Your task to perform on an android device: Open the calendar and show me this week's events Image 0: 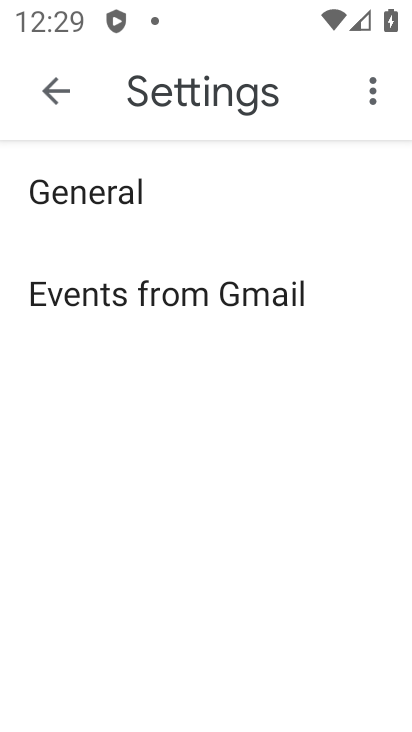
Step 0: press home button
Your task to perform on an android device: Open the calendar and show me this week's events Image 1: 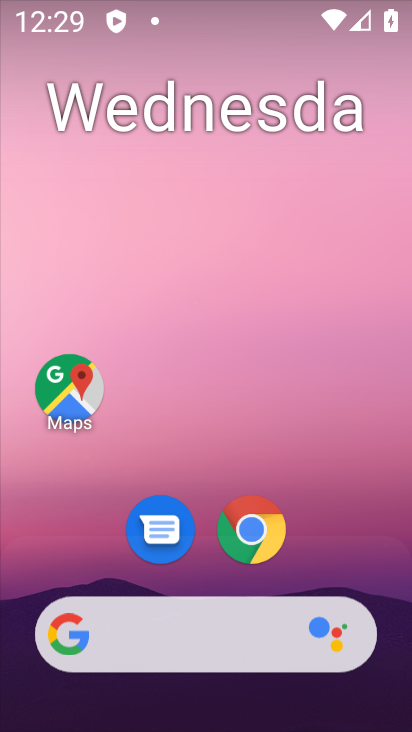
Step 1: drag from (212, 713) to (205, 142)
Your task to perform on an android device: Open the calendar and show me this week's events Image 2: 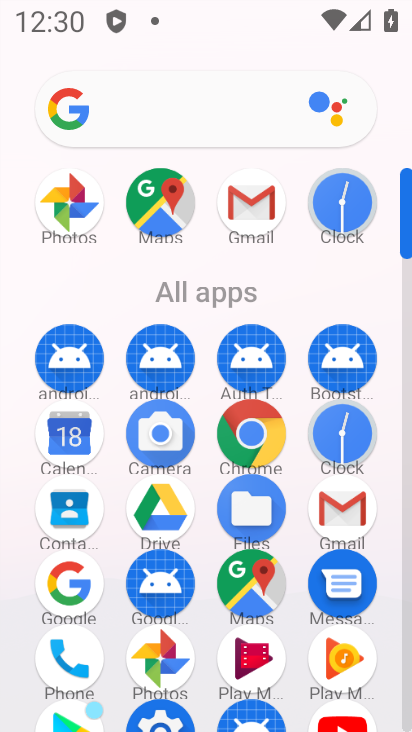
Step 2: click (68, 438)
Your task to perform on an android device: Open the calendar and show me this week's events Image 3: 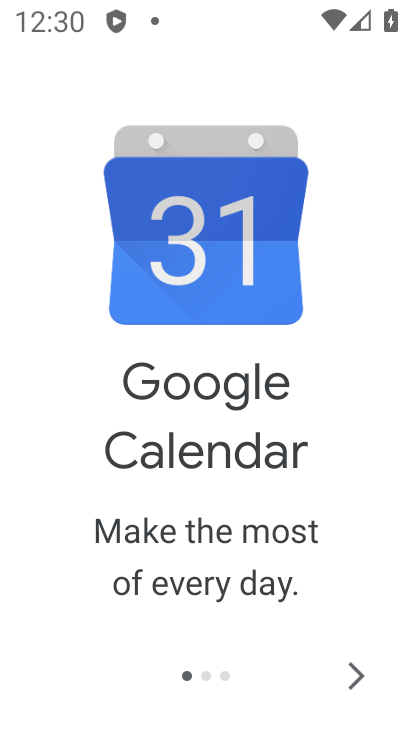
Step 3: click (354, 667)
Your task to perform on an android device: Open the calendar and show me this week's events Image 4: 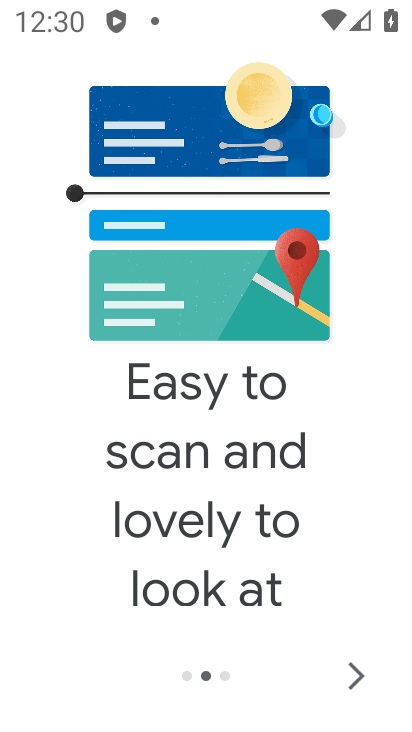
Step 4: click (352, 674)
Your task to perform on an android device: Open the calendar and show me this week's events Image 5: 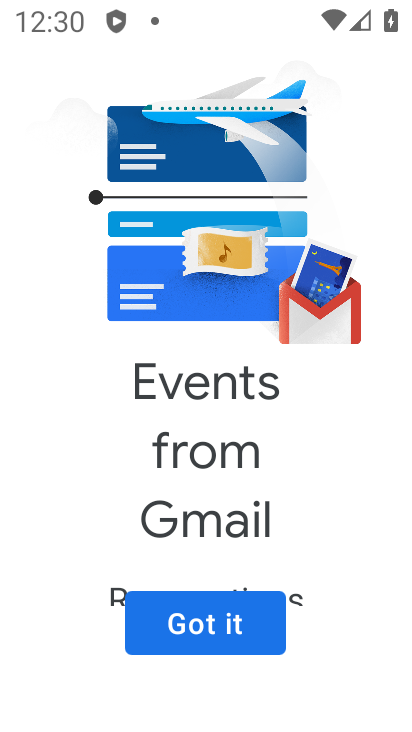
Step 5: click (190, 609)
Your task to perform on an android device: Open the calendar and show me this week's events Image 6: 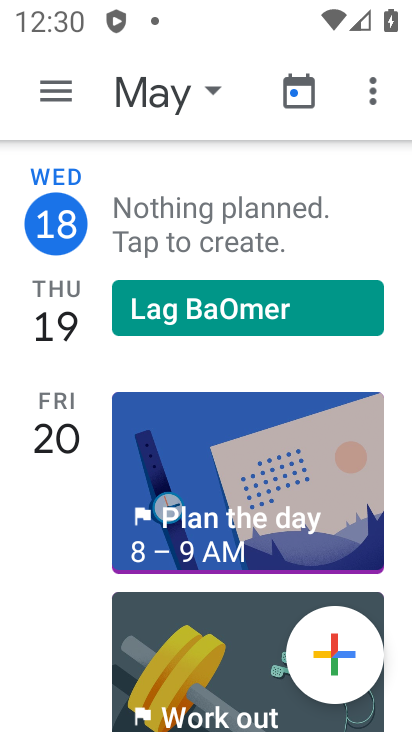
Step 6: click (147, 79)
Your task to perform on an android device: Open the calendar and show me this week's events Image 7: 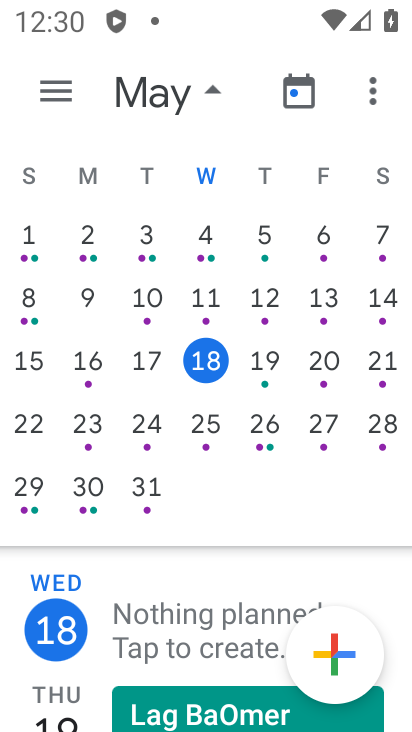
Step 7: click (44, 84)
Your task to perform on an android device: Open the calendar and show me this week's events Image 8: 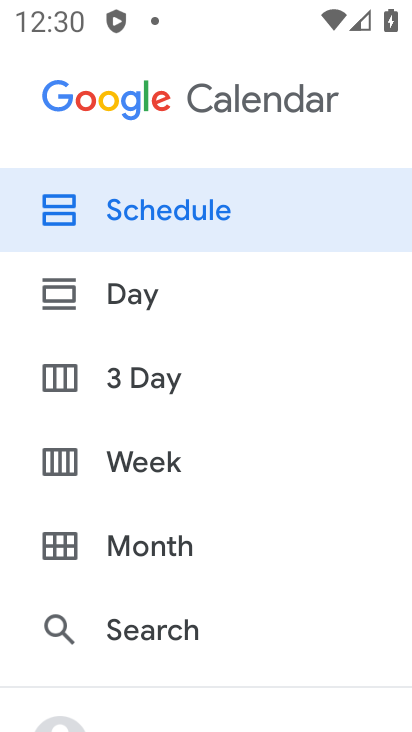
Step 8: drag from (145, 611) to (150, 264)
Your task to perform on an android device: Open the calendar and show me this week's events Image 9: 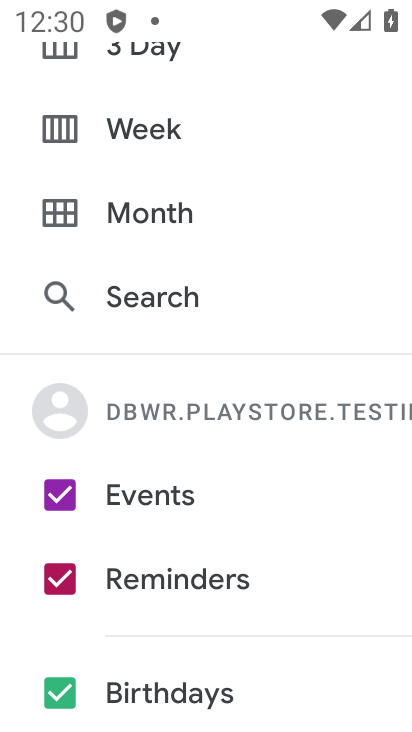
Step 9: drag from (155, 609) to (156, 368)
Your task to perform on an android device: Open the calendar and show me this week's events Image 10: 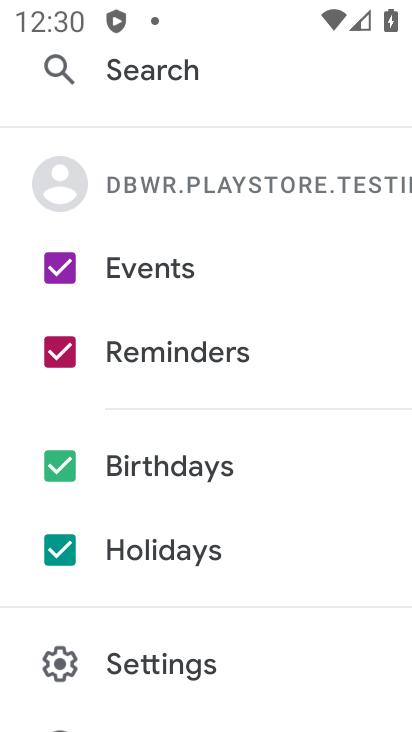
Step 10: click (58, 534)
Your task to perform on an android device: Open the calendar and show me this week's events Image 11: 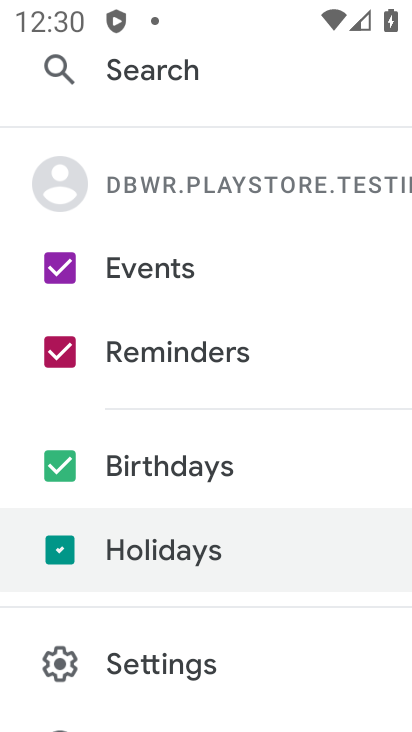
Step 11: click (61, 446)
Your task to perform on an android device: Open the calendar and show me this week's events Image 12: 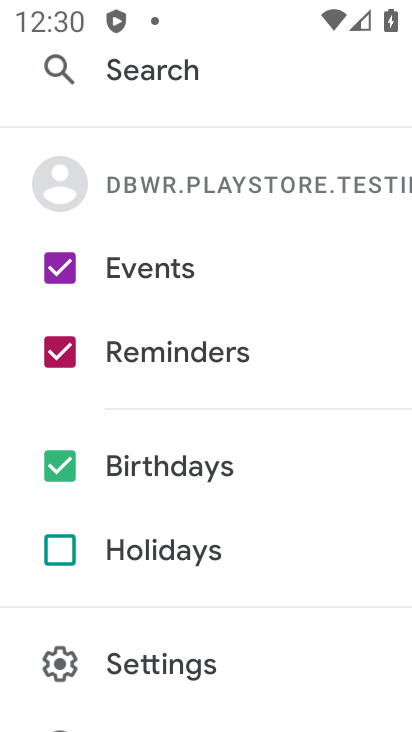
Step 12: click (54, 462)
Your task to perform on an android device: Open the calendar and show me this week's events Image 13: 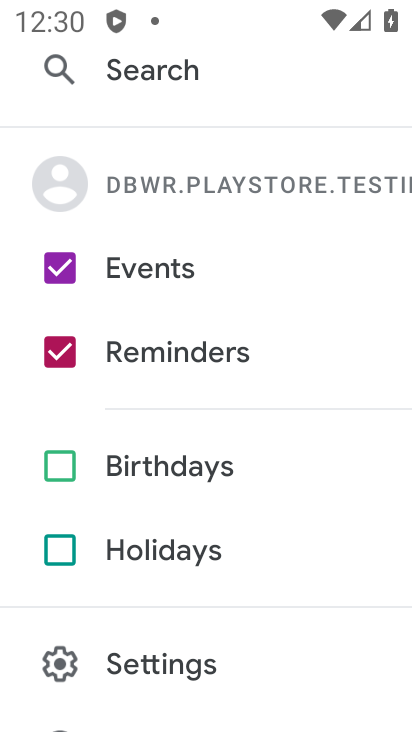
Step 13: click (59, 349)
Your task to perform on an android device: Open the calendar and show me this week's events Image 14: 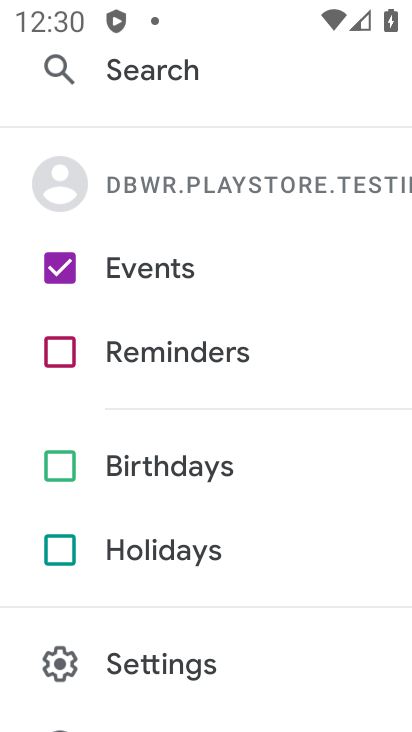
Step 14: drag from (256, 194) to (265, 259)
Your task to perform on an android device: Open the calendar and show me this week's events Image 15: 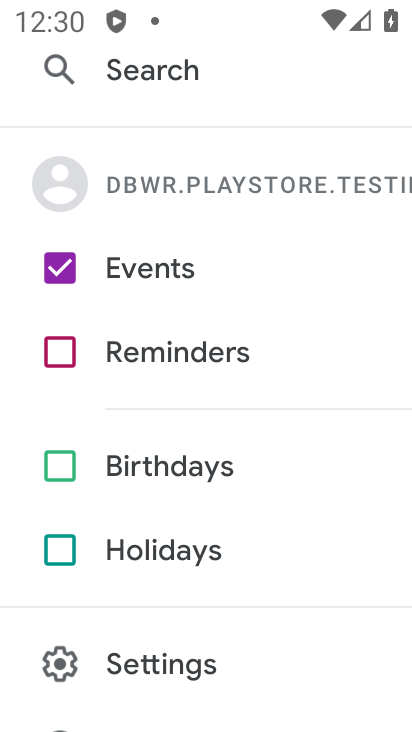
Step 15: drag from (265, 363) to (265, 587)
Your task to perform on an android device: Open the calendar and show me this week's events Image 16: 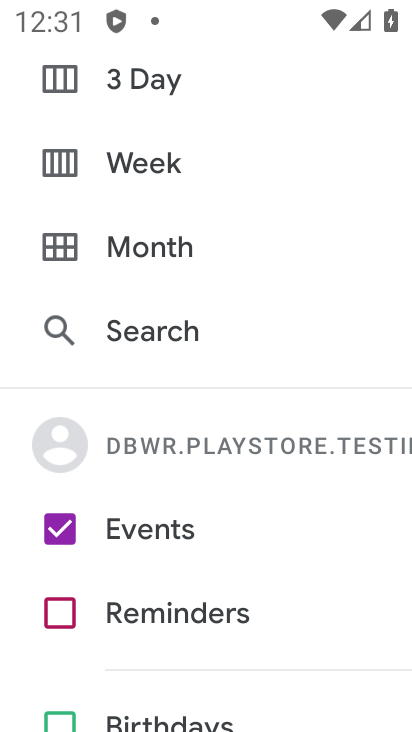
Step 16: click (130, 166)
Your task to perform on an android device: Open the calendar and show me this week's events Image 17: 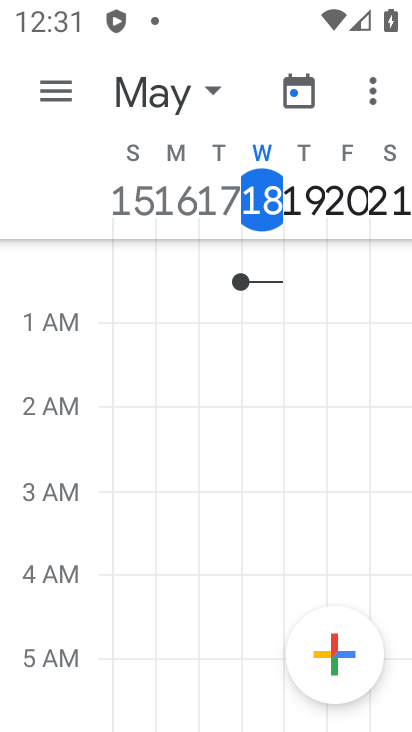
Step 17: task complete